Your task to perform on an android device: turn on showing notifications on the lock screen Image 0: 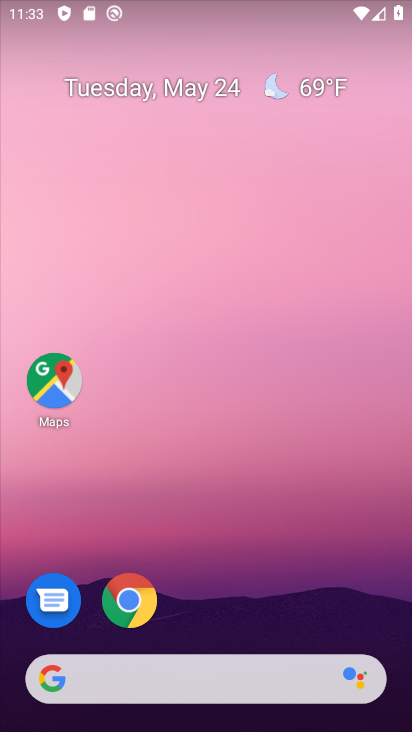
Step 0: drag from (372, 616) to (366, 180)
Your task to perform on an android device: turn on showing notifications on the lock screen Image 1: 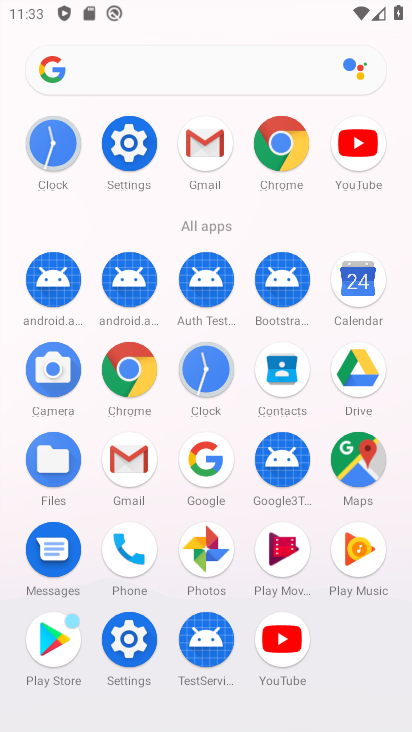
Step 1: click (118, 152)
Your task to perform on an android device: turn on showing notifications on the lock screen Image 2: 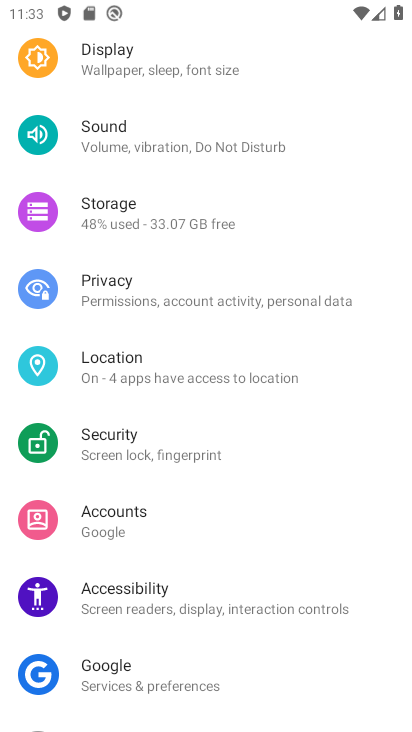
Step 2: drag from (348, 203) to (348, 361)
Your task to perform on an android device: turn on showing notifications on the lock screen Image 3: 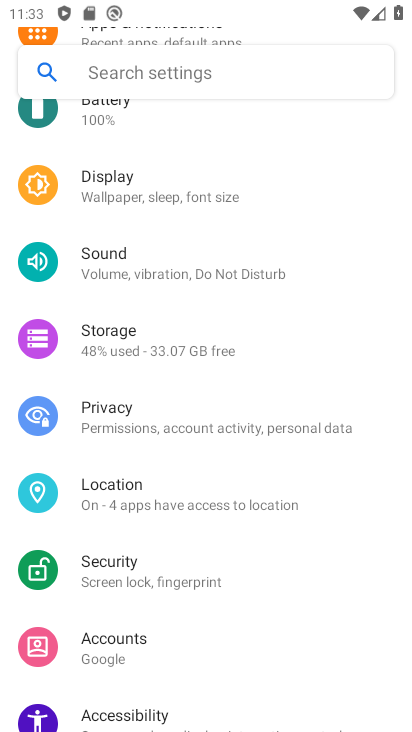
Step 3: drag from (357, 172) to (367, 361)
Your task to perform on an android device: turn on showing notifications on the lock screen Image 4: 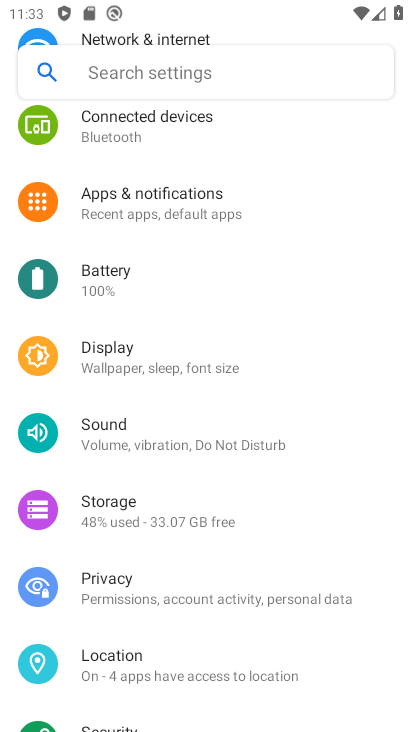
Step 4: drag from (339, 228) to (334, 410)
Your task to perform on an android device: turn on showing notifications on the lock screen Image 5: 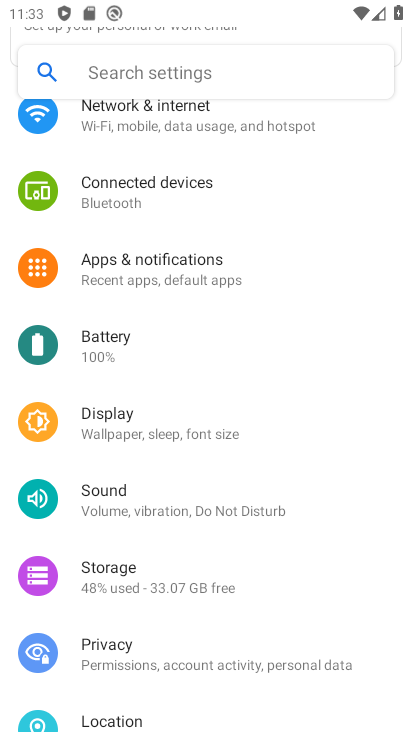
Step 5: drag from (328, 215) to (326, 347)
Your task to perform on an android device: turn on showing notifications on the lock screen Image 6: 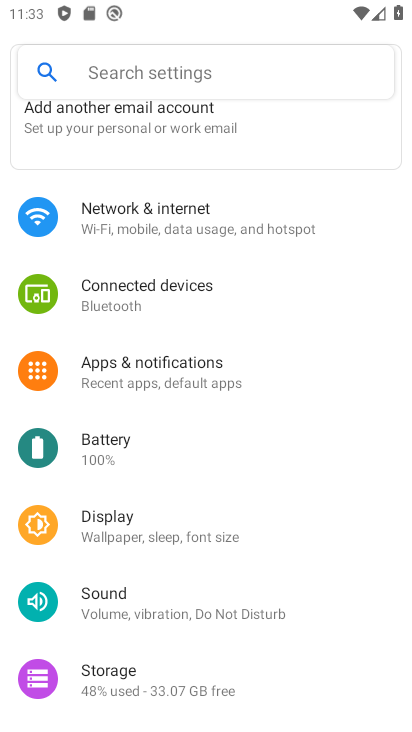
Step 6: drag from (343, 208) to (334, 377)
Your task to perform on an android device: turn on showing notifications on the lock screen Image 7: 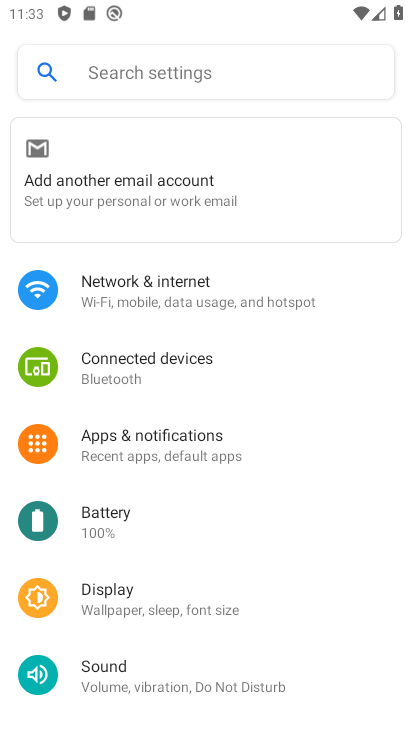
Step 7: drag from (333, 549) to (341, 442)
Your task to perform on an android device: turn on showing notifications on the lock screen Image 8: 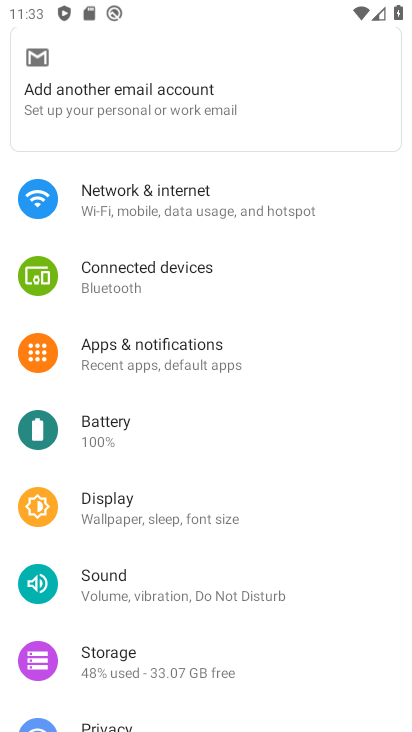
Step 8: drag from (315, 610) to (341, 456)
Your task to perform on an android device: turn on showing notifications on the lock screen Image 9: 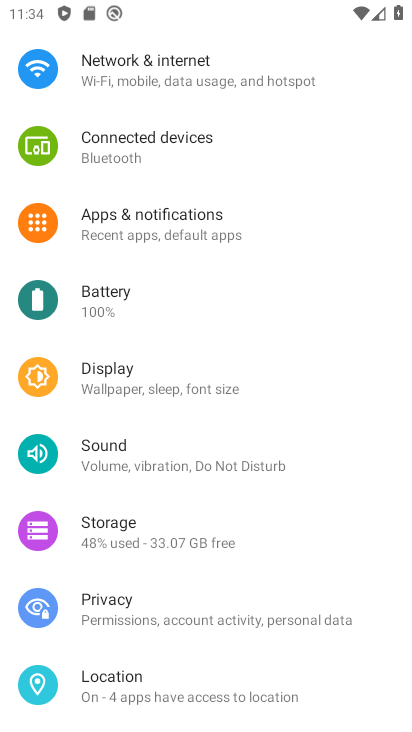
Step 9: drag from (344, 588) to (350, 476)
Your task to perform on an android device: turn on showing notifications on the lock screen Image 10: 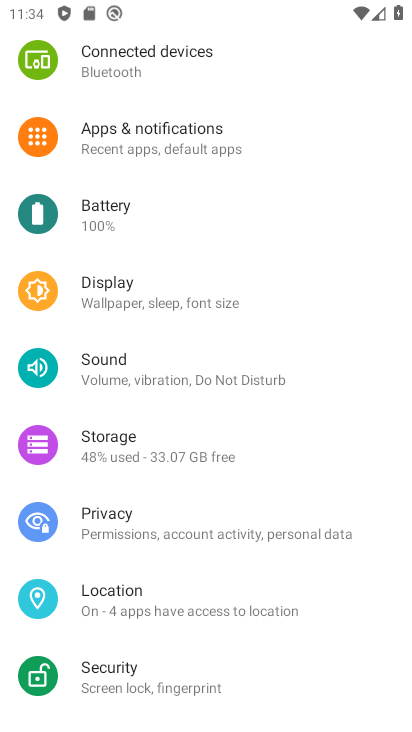
Step 10: drag from (323, 596) to (296, 425)
Your task to perform on an android device: turn on showing notifications on the lock screen Image 11: 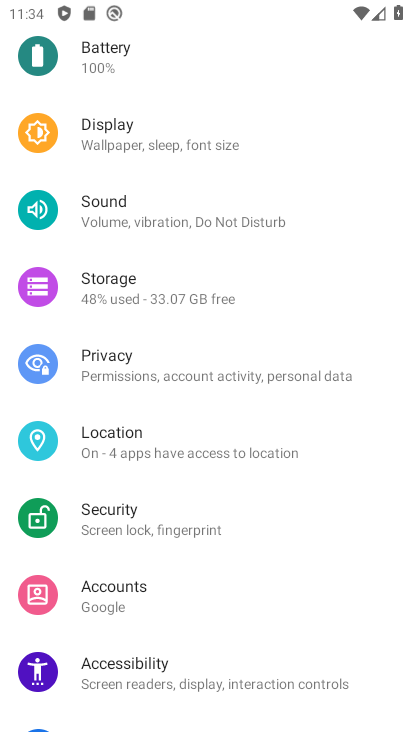
Step 11: drag from (327, 557) to (346, 433)
Your task to perform on an android device: turn on showing notifications on the lock screen Image 12: 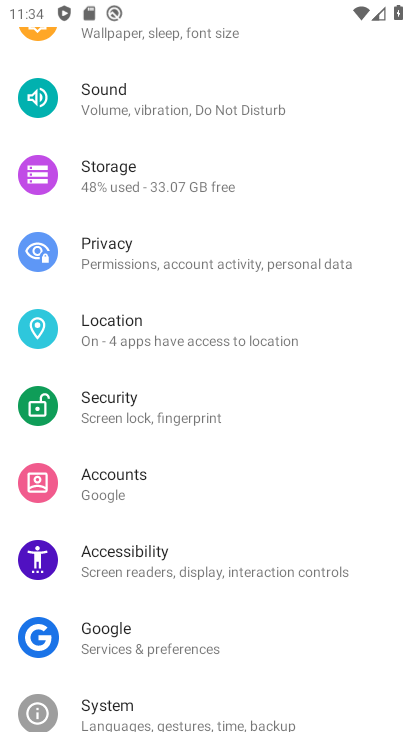
Step 12: drag from (356, 596) to (347, 462)
Your task to perform on an android device: turn on showing notifications on the lock screen Image 13: 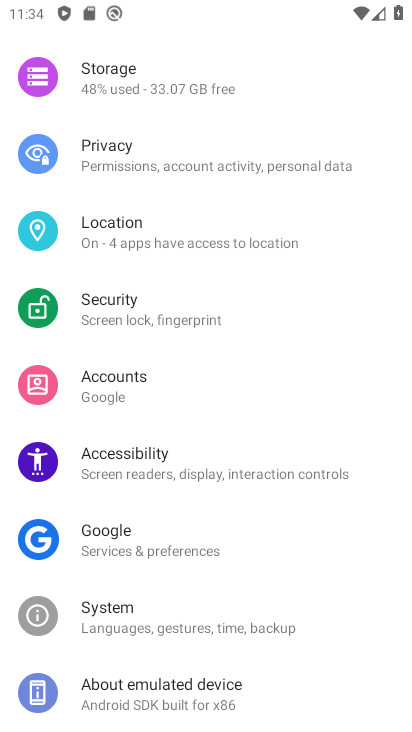
Step 13: drag from (334, 320) to (303, 475)
Your task to perform on an android device: turn on showing notifications on the lock screen Image 14: 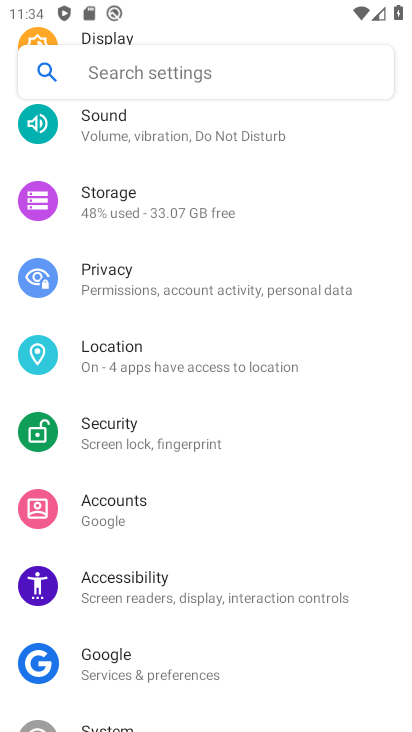
Step 14: drag from (341, 208) to (327, 350)
Your task to perform on an android device: turn on showing notifications on the lock screen Image 15: 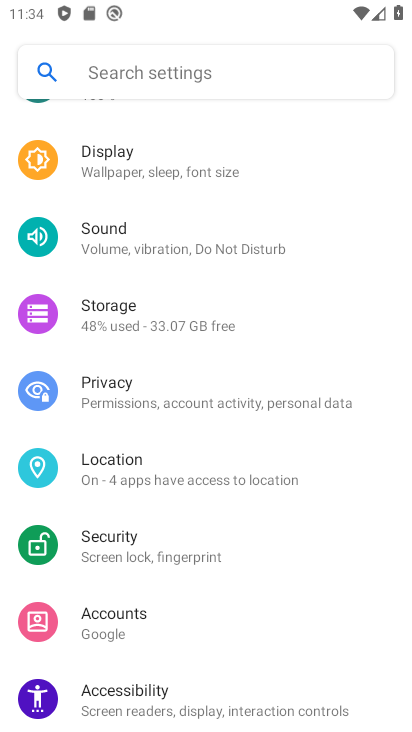
Step 15: drag from (350, 250) to (339, 404)
Your task to perform on an android device: turn on showing notifications on the lock screen Image 16: 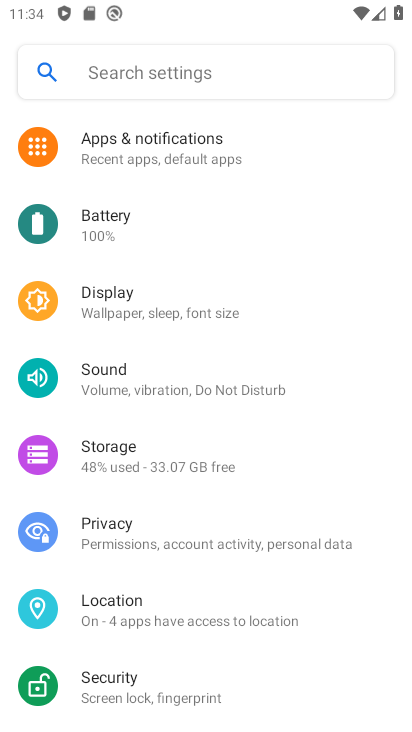
Step 16: drag from (326, 232) to (338, 353)
Your task to perform on an android device: turn on showing notifications on the lock screen Image 17: 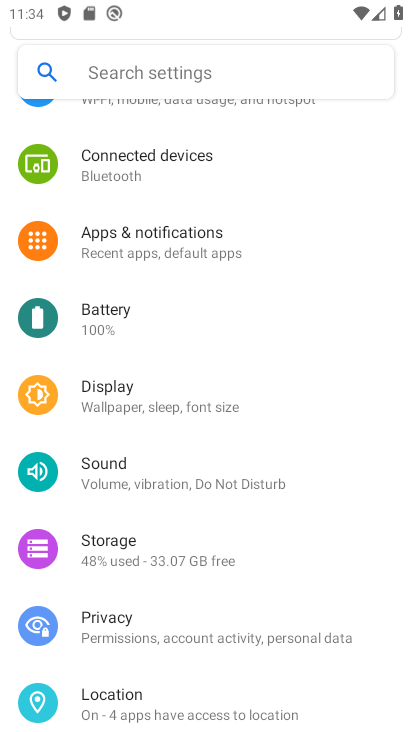
Step 17: click (186, 232)
Your task to perform on an android device: turn on showing notifications on the lock screen Image 18: 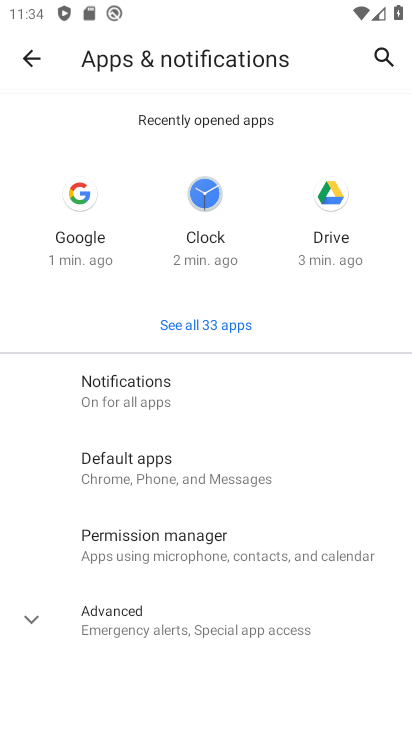
Step 18: click (136, 396)
Your task to perform on an android device: turn on showing notifications on the lock screen Image 19: 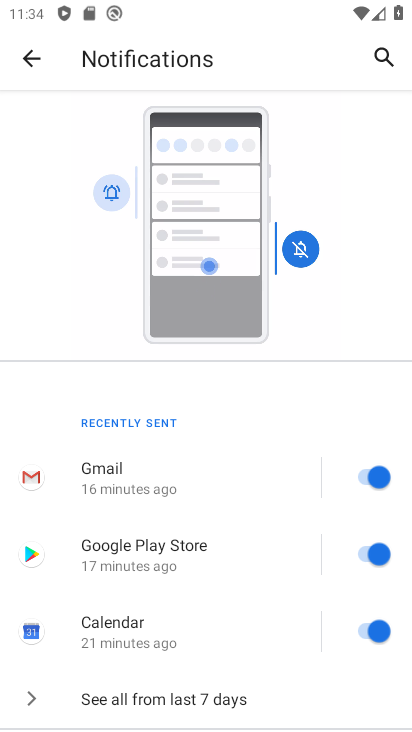
Step 19: drag from (252, 593) to (270, 474)
Your task to perform on an android device: turn on showing notifications on the lock screen Image 20: 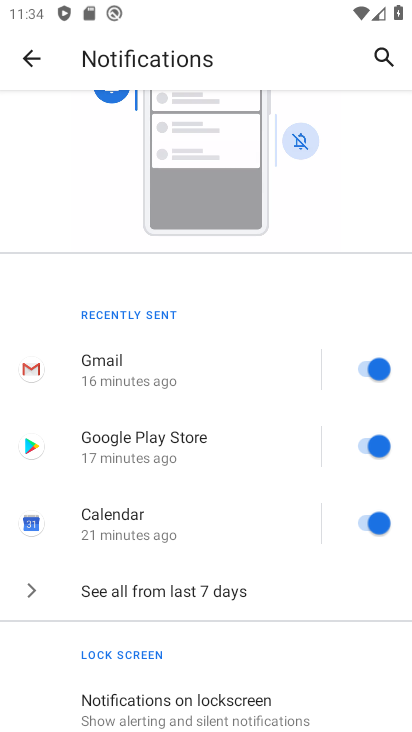
Step 20: drag from (277, 635) to (276, 485)
Your task to perform on an android device: turn on showing notifications on the lock screen Image 21: 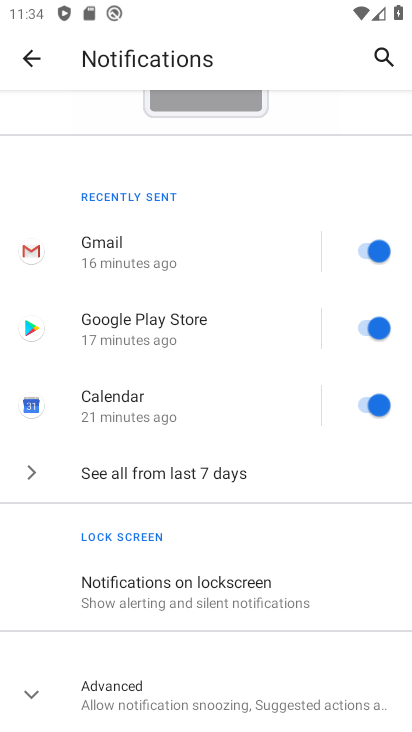
Step 21: drag from (290, 631) to (299, 485)
Your task to perform on an android device: turn on showing notifications on the lock screen Image 22: 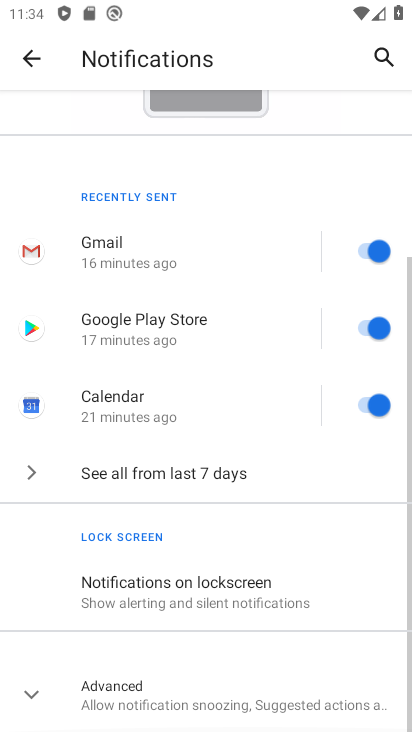
Step 22: click (244, 610)
Your task to perform on an android device: turn on showing notifications on the lock screen Image 23: 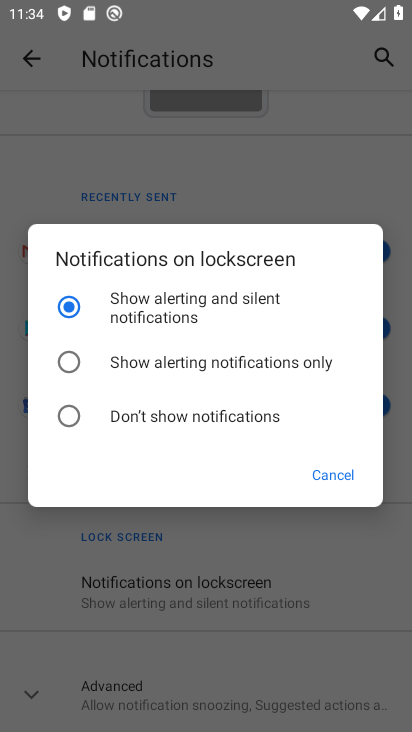
Step 23: task complete